Your task to perform on an android device: see creations saved in the google photos Image 0: 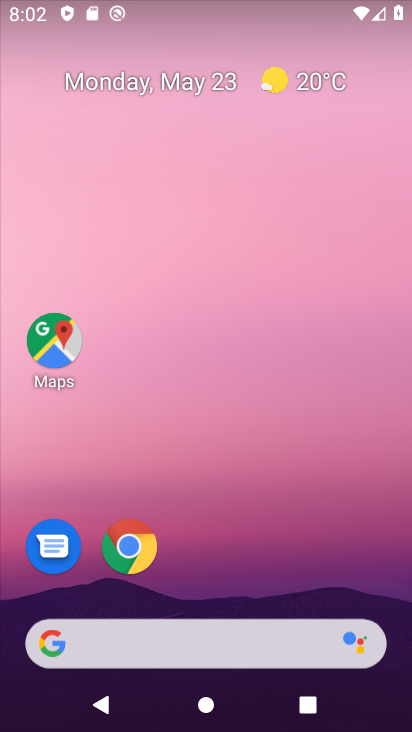
Step 0: drag from (283, 564) to (197, 19)
Your task to perform on an android device: see creations saved in the google photos Image 1: 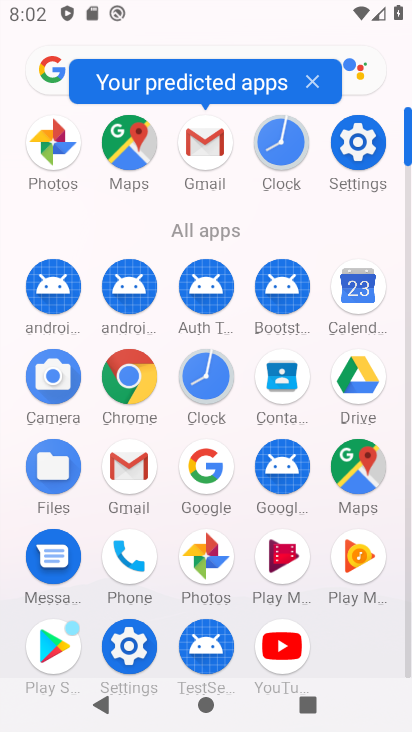
Step 1: click (206, 548)
Your task to perform on an android device: see creations saved in the google photos Image 2: 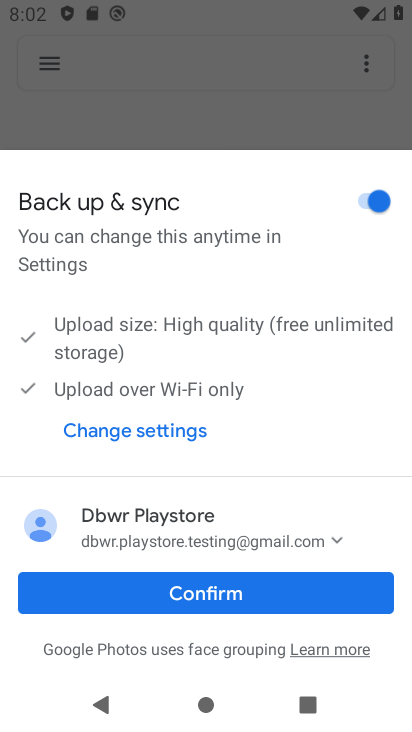
Step 2: click (212, 594)
Your task to perform on an android device: see creations saved in the google photos Image 3: 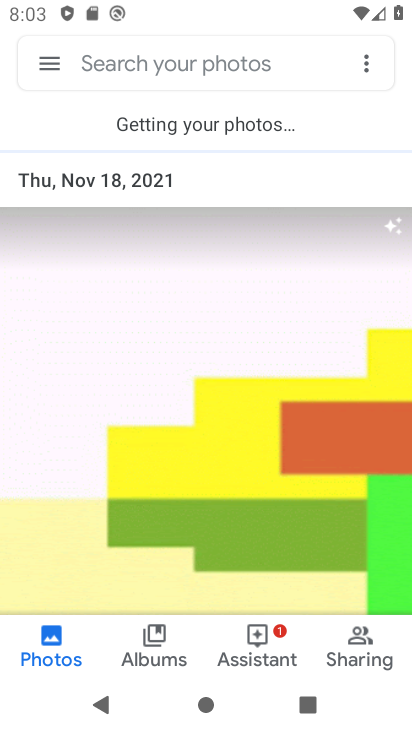
Step 3: click (64, 631)
Your task to perform on an android device: see creations saved in the google photos Image 4: 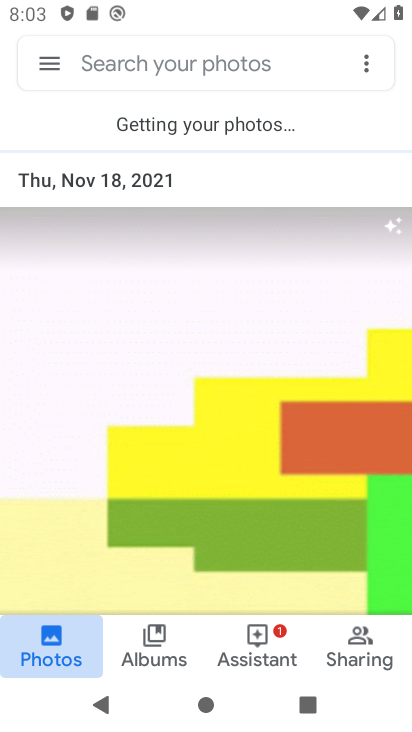
Step 4: task complete